Your task to perform on an android device: Search for seafood restaurants on Google Maps Image 0: 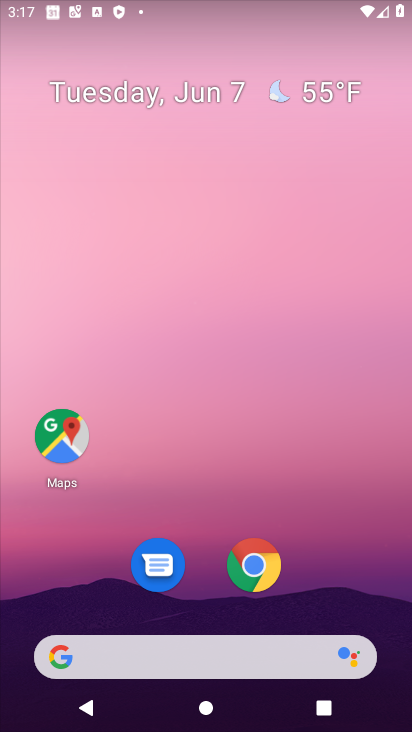
Step 0: drag from (162, 647) to (225, 185)
Your task to perform on an android device: Search for seafood restaurants on Google Maps Image 1: 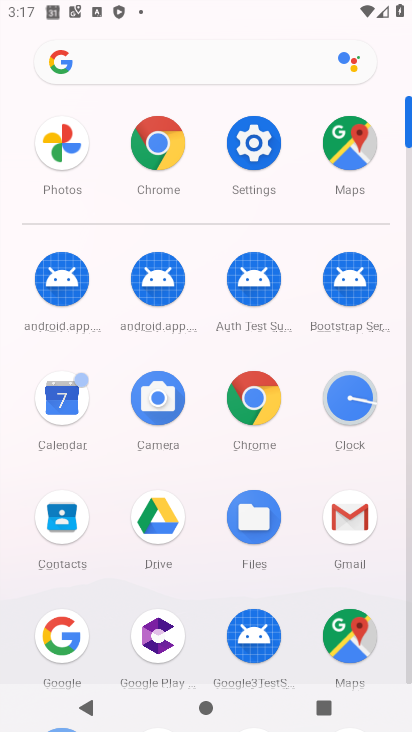
Step 1: click (351, 640)
Your task to perform on an android device: Search for seafood restaurants on Google Maps Image 2: 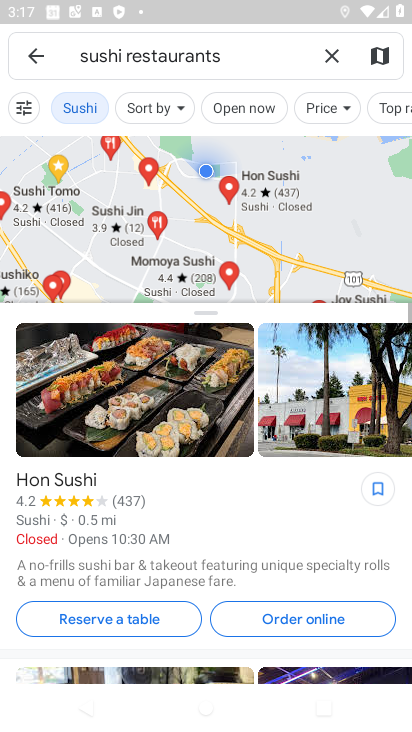
Step 2: press back button
Your task to perform on an android device: Search for seafood restaurants on Google Maps Image 3: 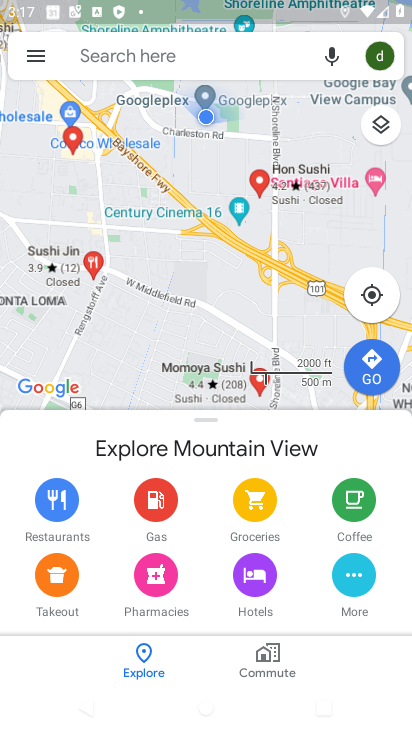
Step 3: click (158, 55)
Your task to perform on an android device: Search for seafood restaurants on Google Maps Image 4: 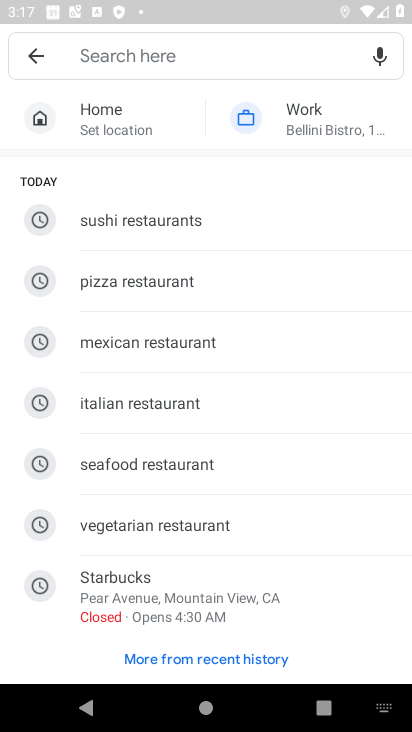
Step 4: click (155, 470)
Your task to perform on an android device: Search for seafood restaurants on Google Maps Image 5: 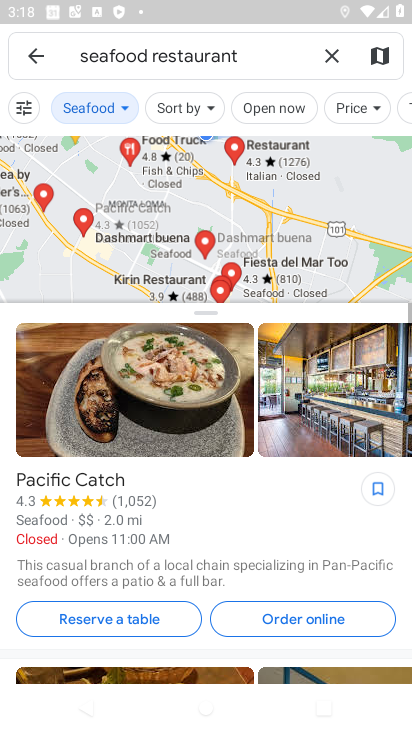
Step 5: task complete